Your task to perform on an android device: Go to notification settings Image 0: 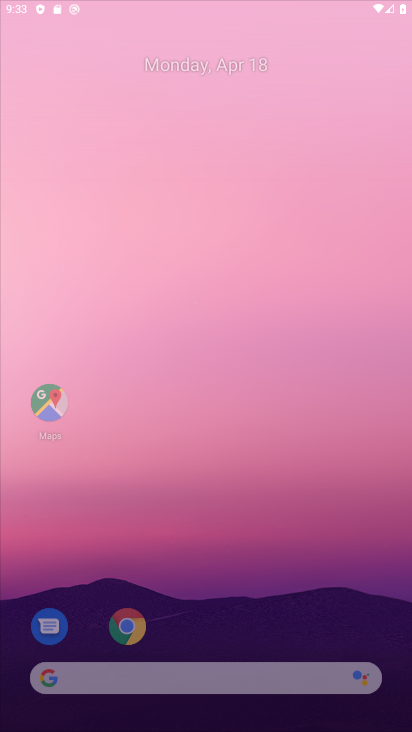
Step 0: click (129, 634)
Your task to perform on an android device: Go to notification settings Image 1: 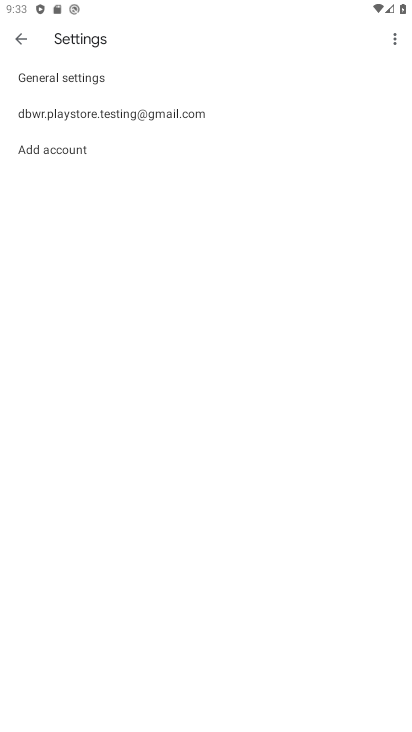
Step 1: press home button
Your task to perform on an android device: Go to notification settings Image 2: 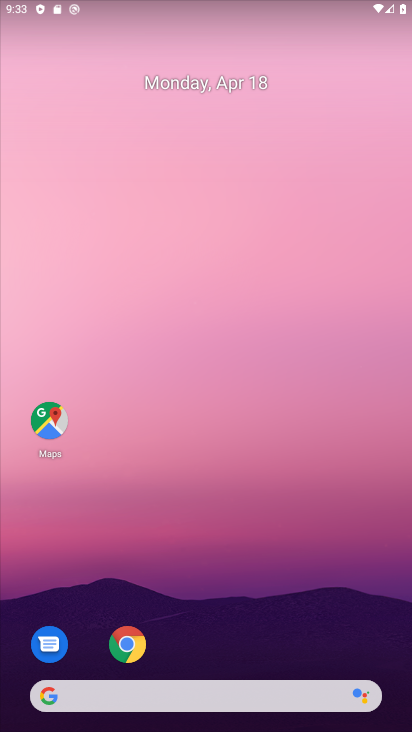
Step 2: drag from (199, 645) to (281, 118)
Your task to perform on an android device: Go to notification settings Image 3: 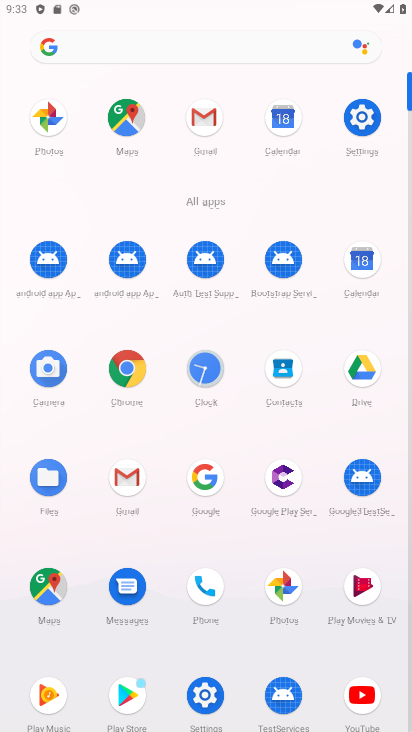
Step 3: click (366, 126)
Your task to perform on an android device: Go to notification settings Image 4: 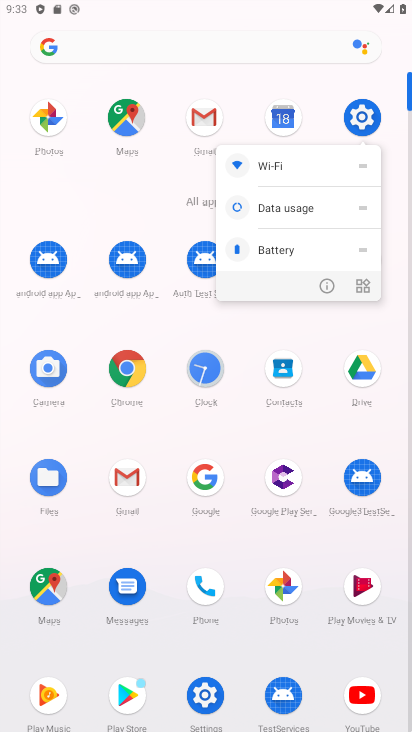
Step 4: click (365, 116)
Your task to perform on an android device: Go to notification settings Image 5: 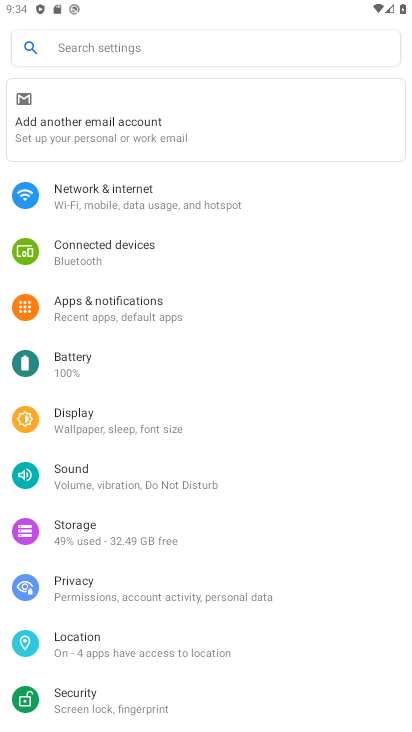
Step 5: click (123, 308)
Your task to perform on an android device: Go to notification settings Image 6: 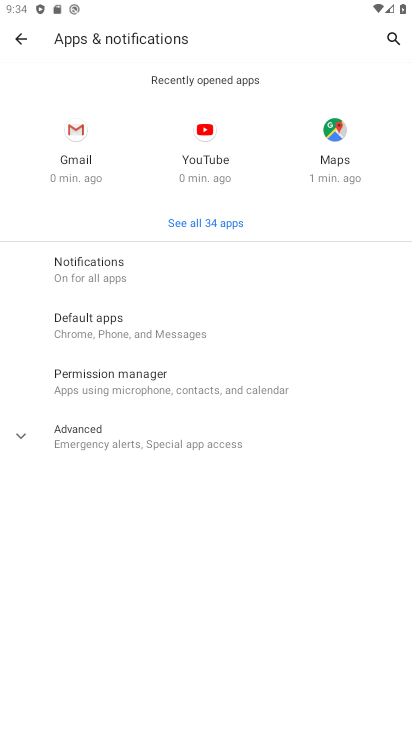
Step 6: click (114, 269)
Your task to perform on an android device: Go to notification settings Image 7: 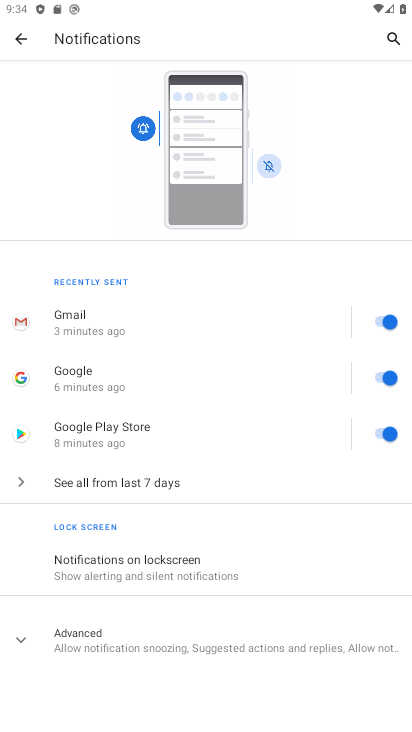
Step 7: task complete